Your task to perform on an android device: turn off picture-in-picture Image 0: 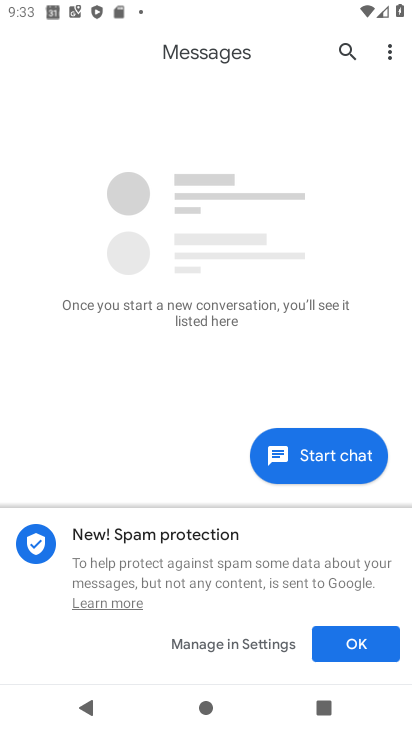
Step 0: press home button
Your task to perform on an android device: turn off picture-in-picture Image 1: 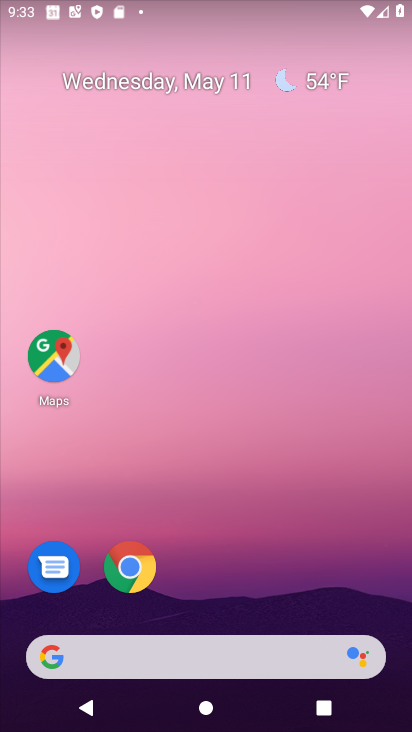
Step 1: click (131, 565)
Your task to perform on an android device: turn off picture-in-picture Image 2: 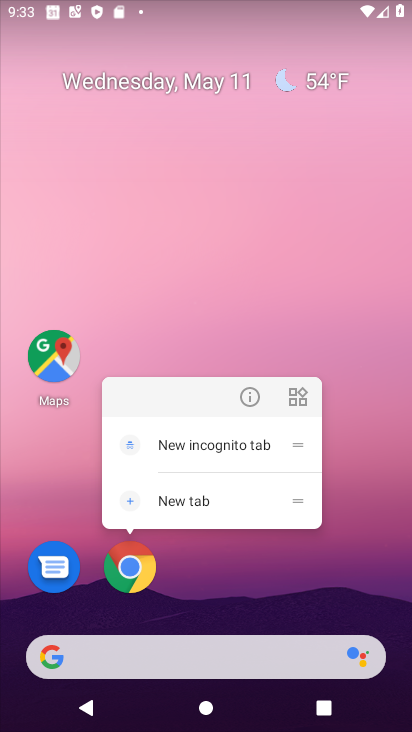
Step 2: click (249, 403)
Your task to perform on an android device: turn off picture-in-picture Image 3: 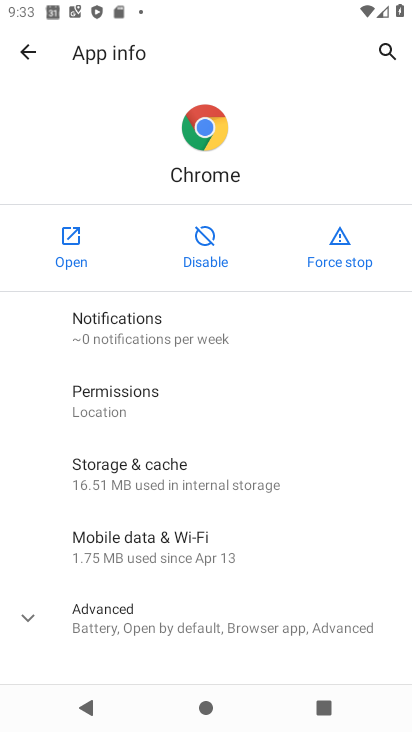
Step 3: click (160, 619)
Your task to perform on an android device: turn off picture-in-picture Image 4: 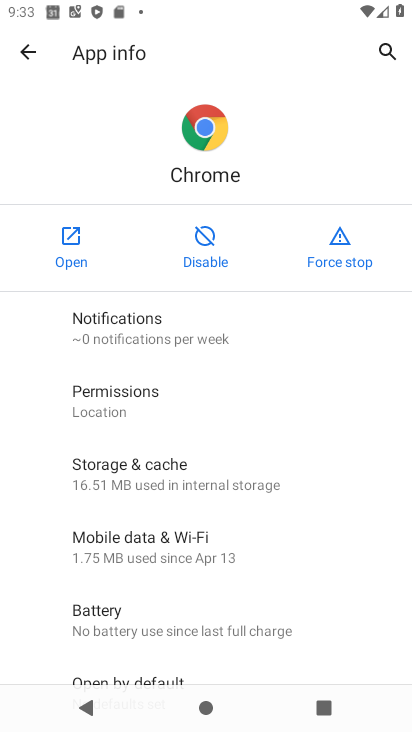
Step 4: drag from (199, 603) to (240, 348)
Your task to perform on an android device: turn off picture-in-picture Image 5: 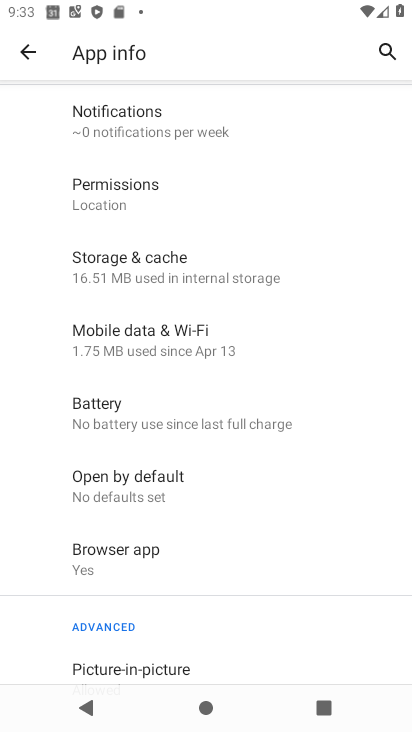
Step 5: drag from (144, 575) to (197, 265)
Your task to perform on an android device: turn off picture-in-picture Image 6: 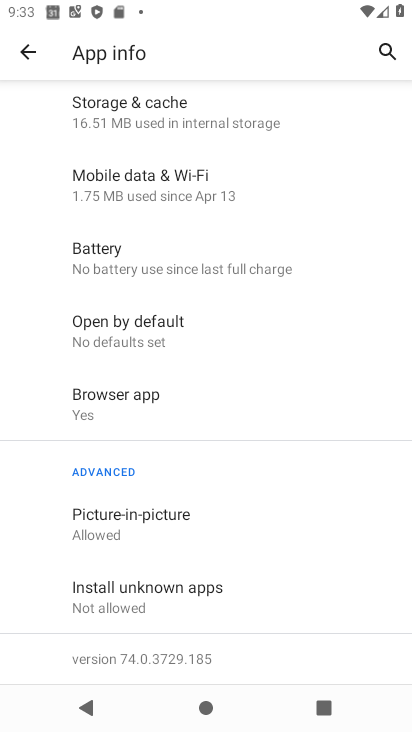
Step 6: click (141, 515)
Your task to perform on an android device: turn off picture-in-picture Image 7: 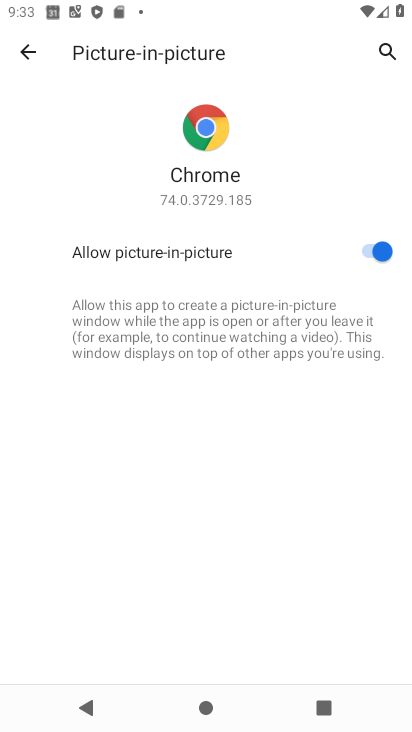
Step 7: click (354, 252)
Your task to perform on an android device: turn off picture-in-picture Image 8: 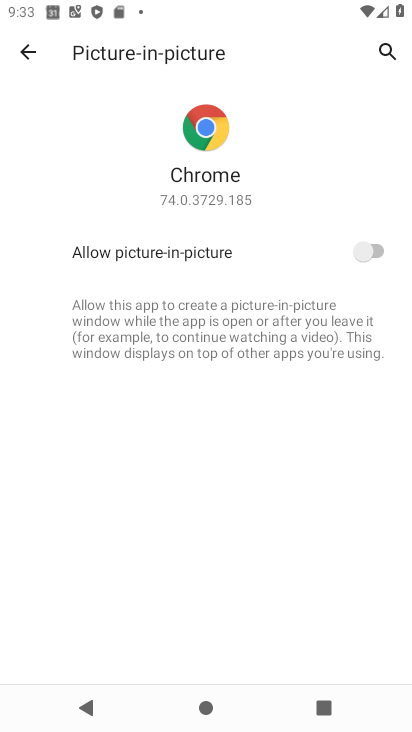
Step 8: task complete